Your task to perform on an android device: turn on the 24-hour format for clock Image 0: 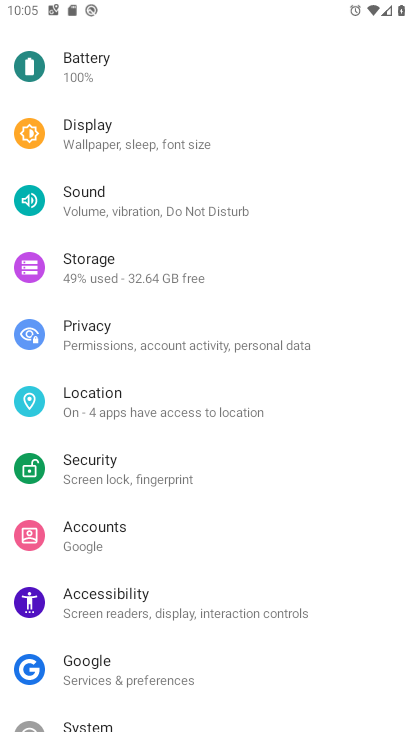
Step 0: press home button
Your task to perform on an android device: turn on the 24-hour format for clock Image 1: 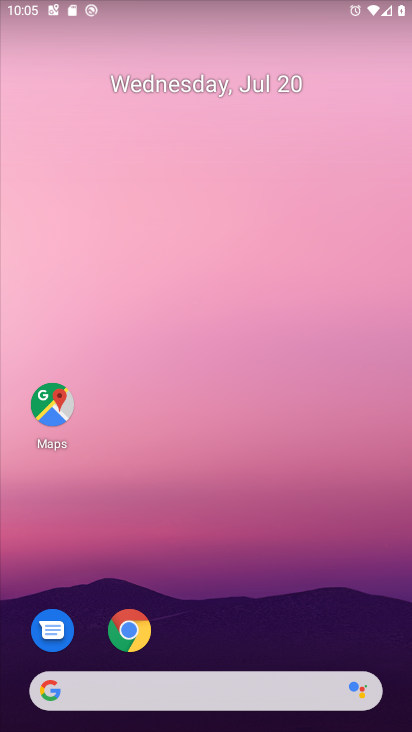
Step 1: drag from (211, 691) to (263, 95)
Your task to perform on an android device: turn on the 24-hour format for clock Image 2: 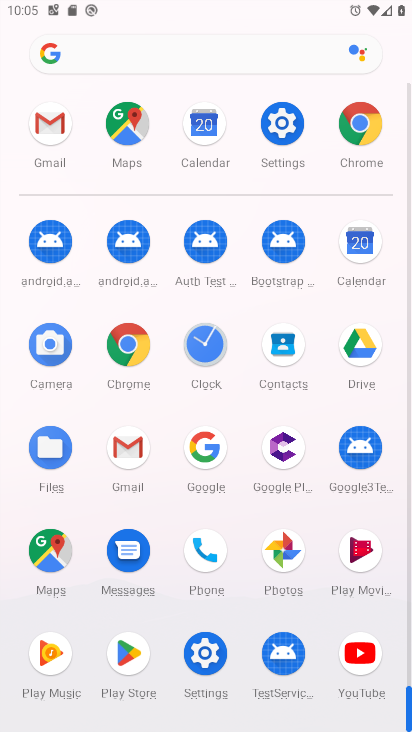
Step 2: click (217, 660)
Your task to perform on an android device: turn on the 24-hour format for clock Image 3: 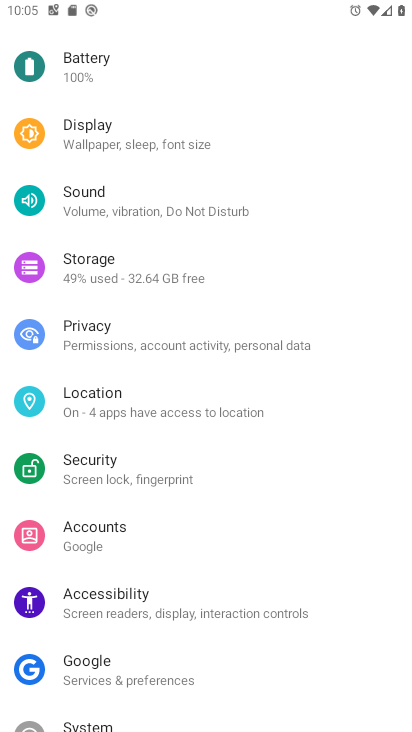
Step 3: drag from (168, 698) to (302, 225)
Your task to perform on an android device: turn on the 24-hour format for clock Image 4: 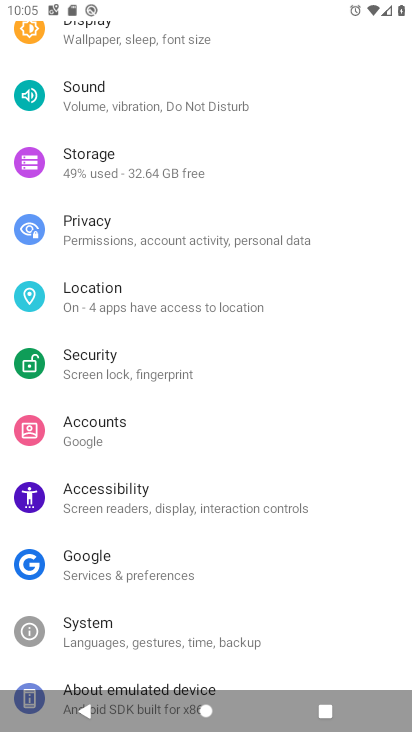
Step 4: click (81, 620)
Your task to perform on an android device: turn on the 24-hour format for clock Image 5: 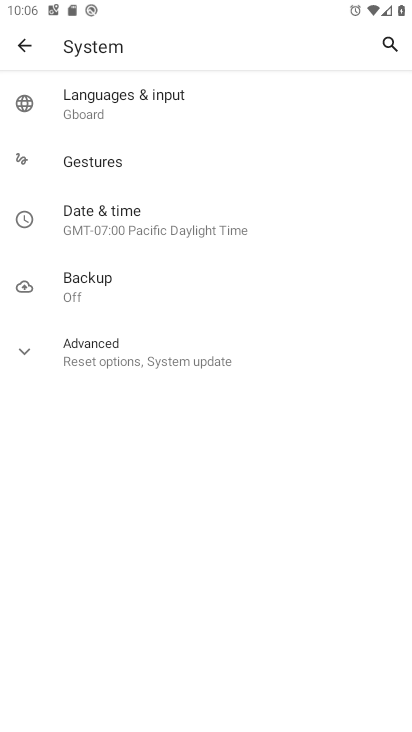
Step 5: click (134, 223)
Your task to perform on an android device: turn on the 24-hour format for clock Image 6: 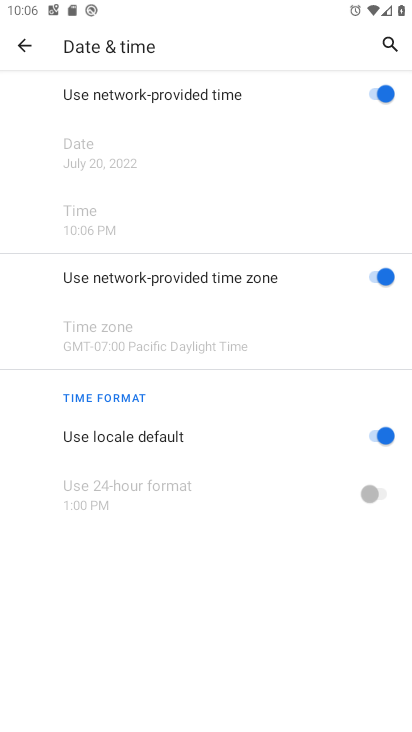
Step 6: click (380, 432)
Your task to perform on an android device: turn on the 24-hour format for clock Image 7: 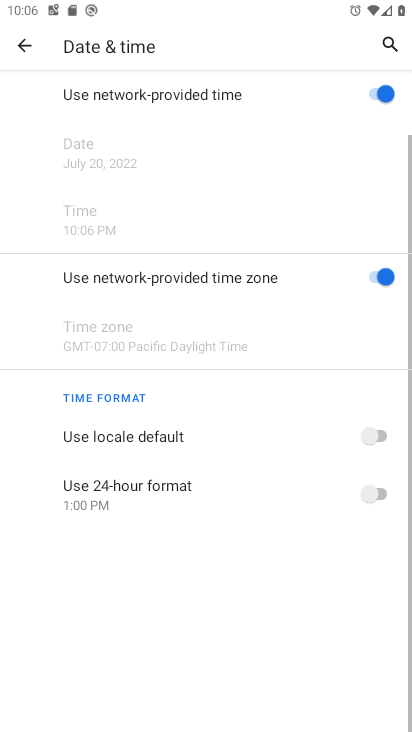
Step 7: click (374, 496)
Your task to perform on an android device: turn on the 24-hour format for clock Image 8: 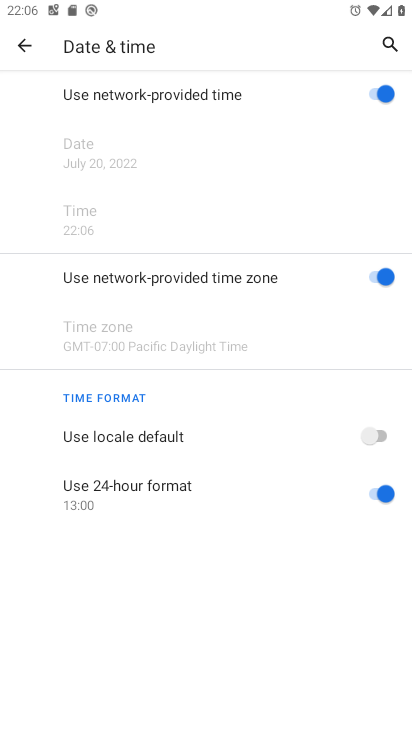
Step 8: task complete